Your task to perform on an android device: Search for pizza restaurants on Maps Image 0: 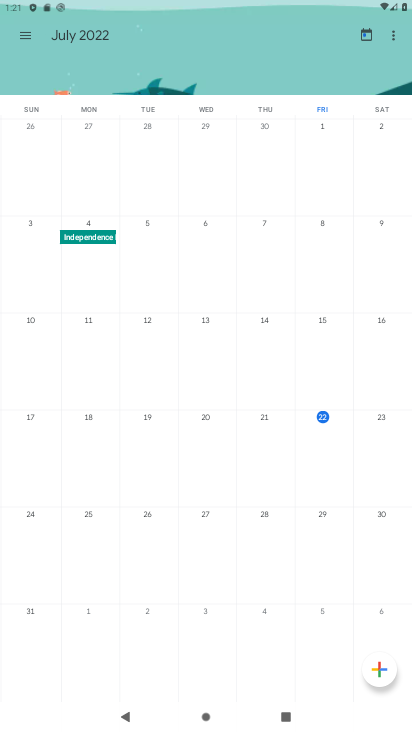
Step 0: click (203, 61)
Your task to perform on an android device: Search for pizza restaurants on Maps Image 1: 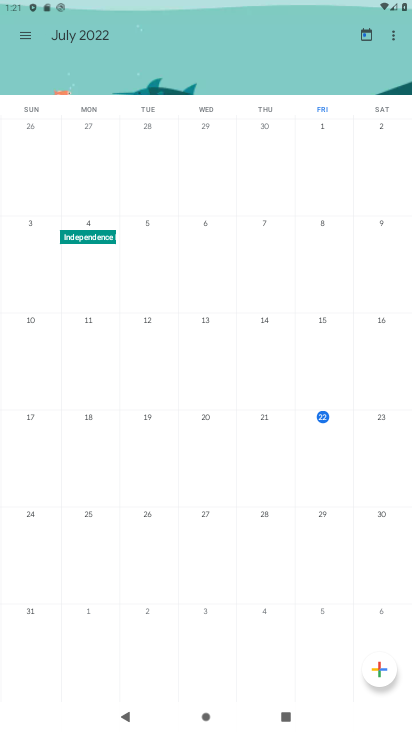
Step 1: press home button
Your task to perform on an android device: Search for pizza restaurants on Maps Image 2: 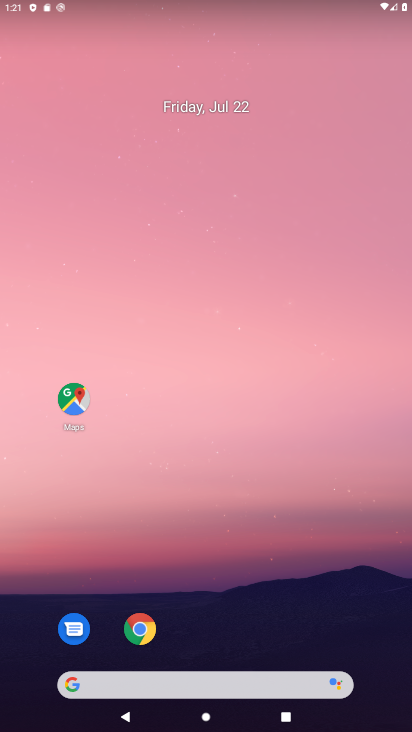
Step 2: click (54, 395)
Your task to perform on an android device: Search for pizza restaurants on Maps Image 3: 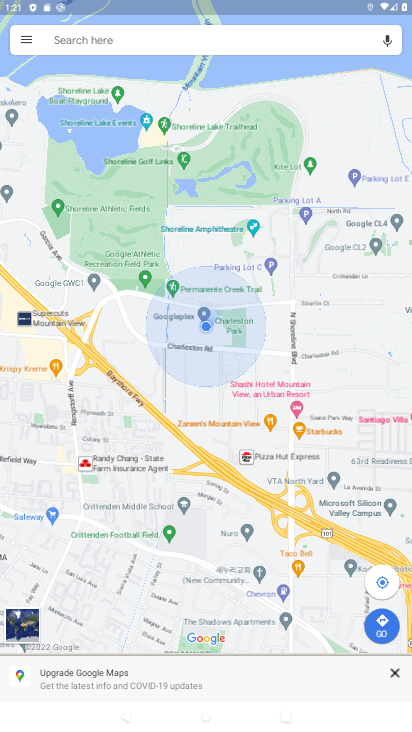
Step 3: click (156, 40)
Your task to perform on an android device: Search for pizza restaurants on Maps Image 4: 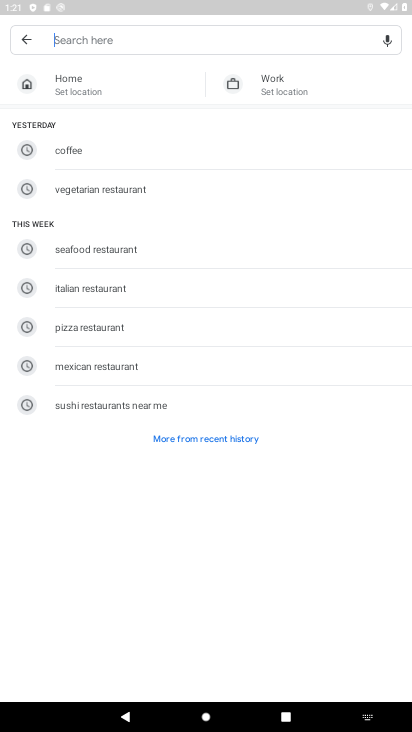
Step 4: click (74, 323)
Your task to perform on an android device: Search for pizza restaurants on Maps Image 5: 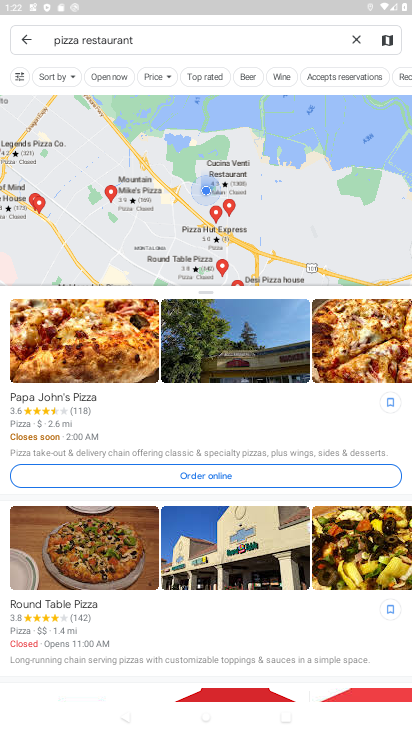
Step 5: task complete